Your task to perform on an android device: Open maps Image 0: 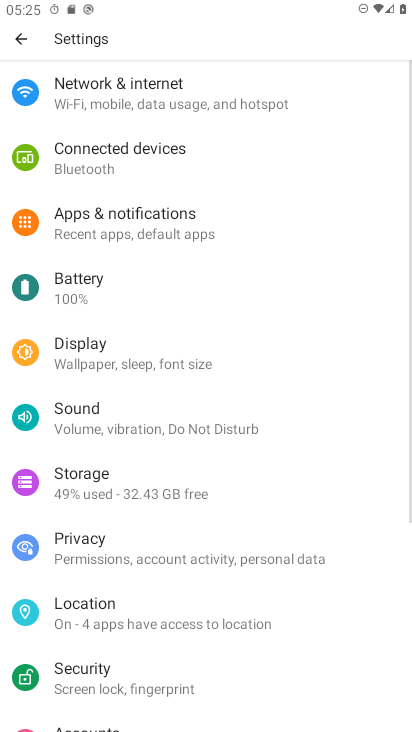
Step 0: press home button
Your task to perform on an android device: Open maps Image 1: 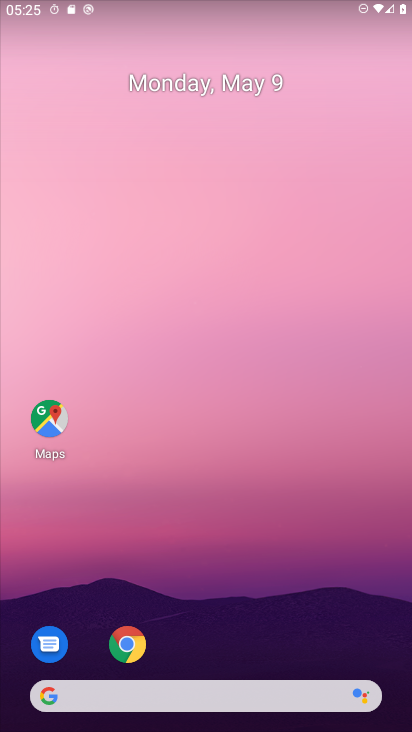
Step 1: click (50, 423)
Your task to perform on an android device: Open maps Image 2: 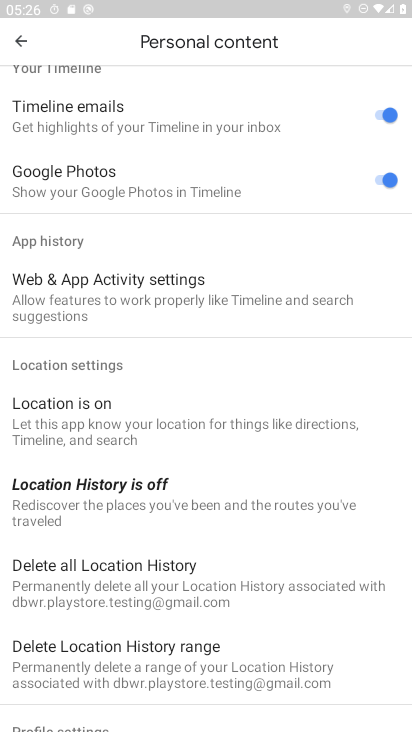
Step 2: task complete